Your task to perform on an android device: change text size in settings app Image 0: 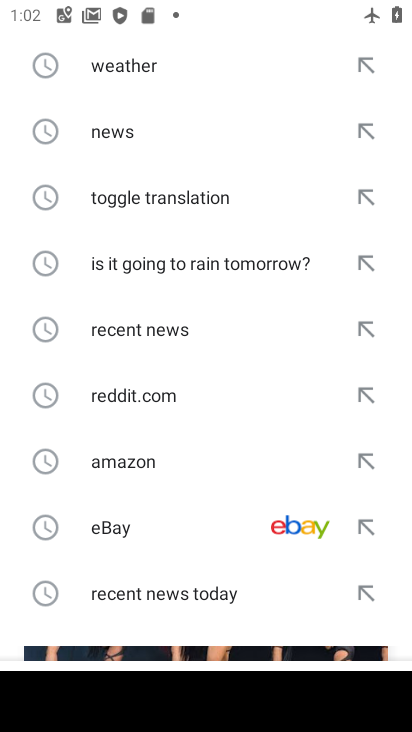
Step 0: press home button
Your task to perform on an android device: change text size in settings app Image 1: 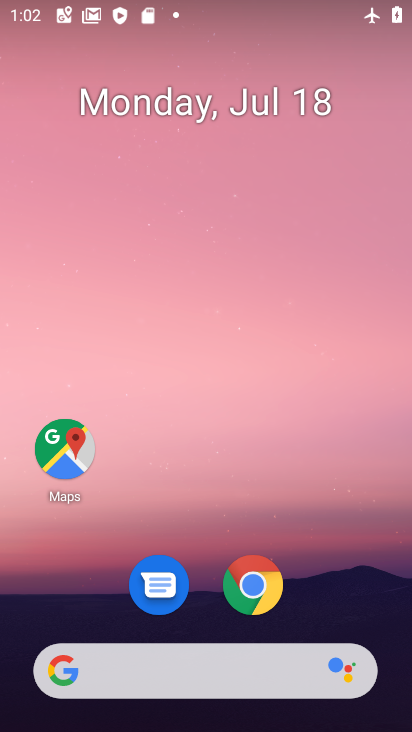
Step 1: drag from (186, 677) to (273, 0)
Your task to perform on an android device: change text size in settings app Image 2: 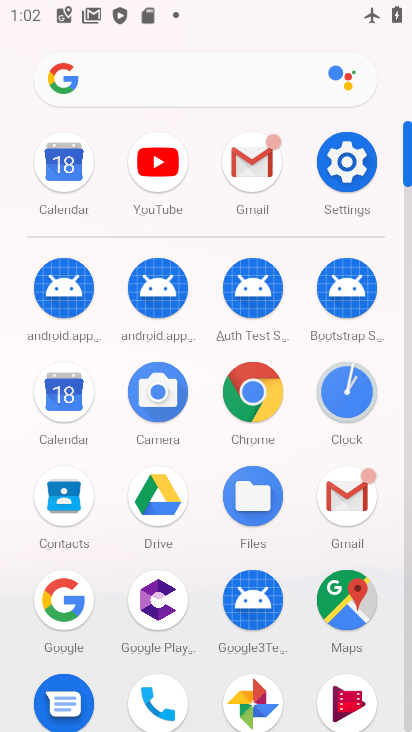
Step 2: click (336, 155)
Your task to perform on an android device: change text size in settings app Image 3: 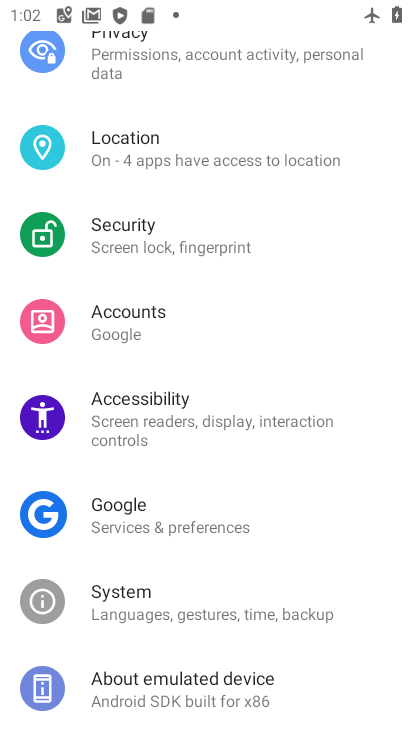
Step 3: drag from (262, 99) to (250, 624)
Your task to perform on an android device: change text size in settings app Image 4: 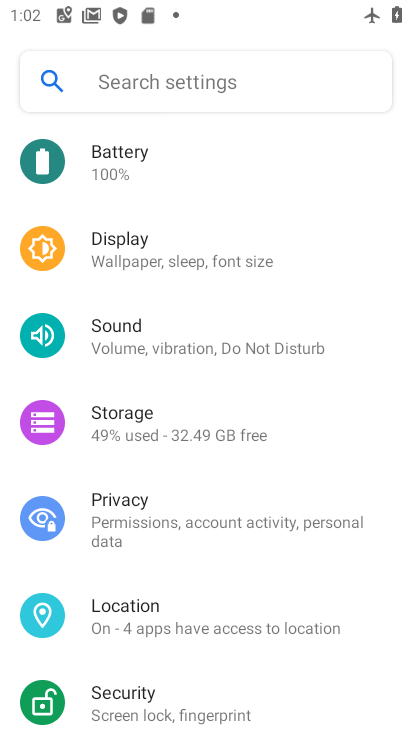
Step 4: click (145, 256)
Your task to perform on an android device: change text size in settings app Image 5: 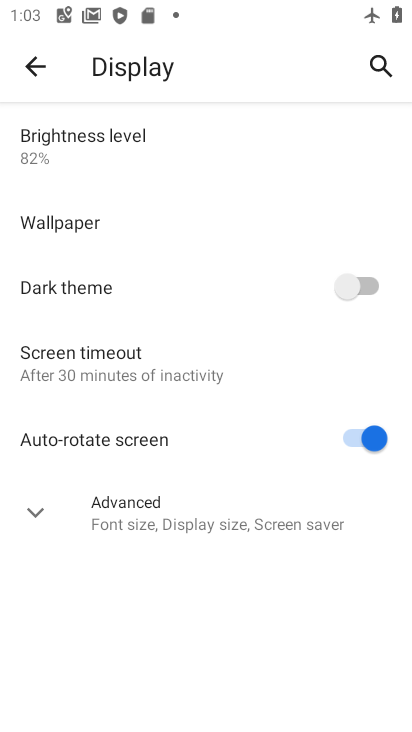
Step 5: click (75, 501)
Your task to perform on an android device: change text size in settings app Image 6: 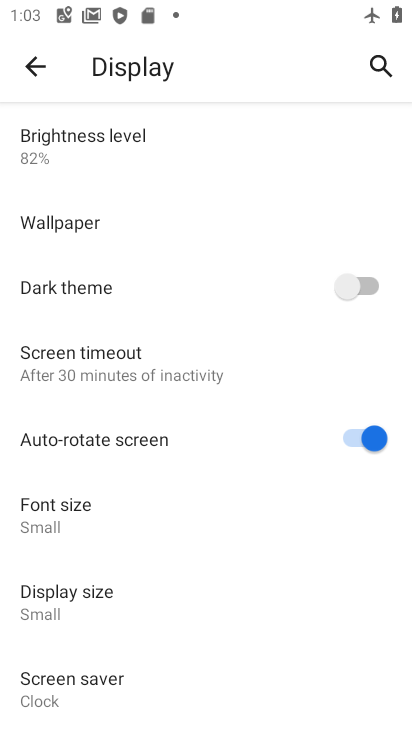
Step 6: click (57, 519)
Your task to perform on an android device: change text size in settings app Image 7: 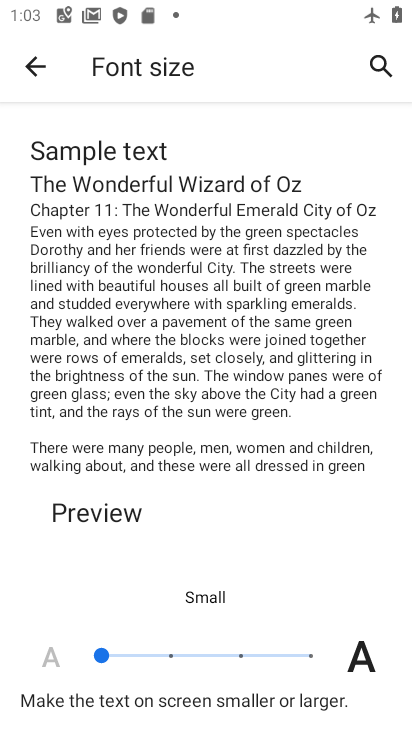
Step 7: click (171, 656)
Your task to perform on an android device: change text size in settings app Image 8: 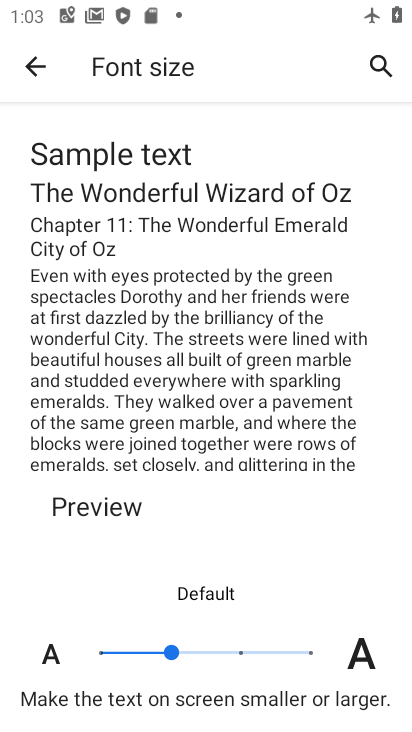
Step 8: task complete